Your task to perform on an android device: What's the weather? Image 0: 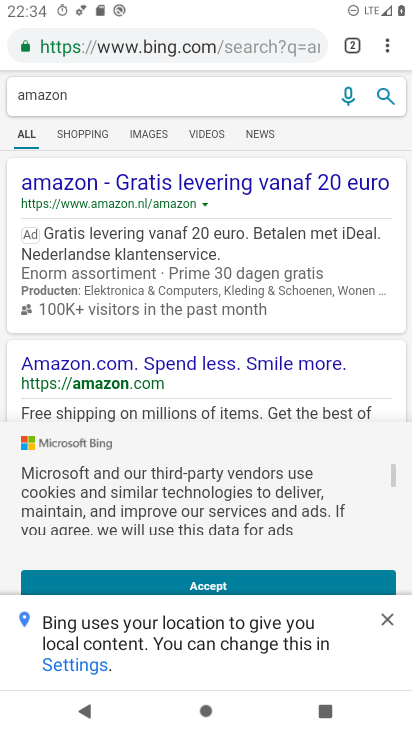
Step 0: press home button
Your task to perform on an android device: What's the weather? Image 1: 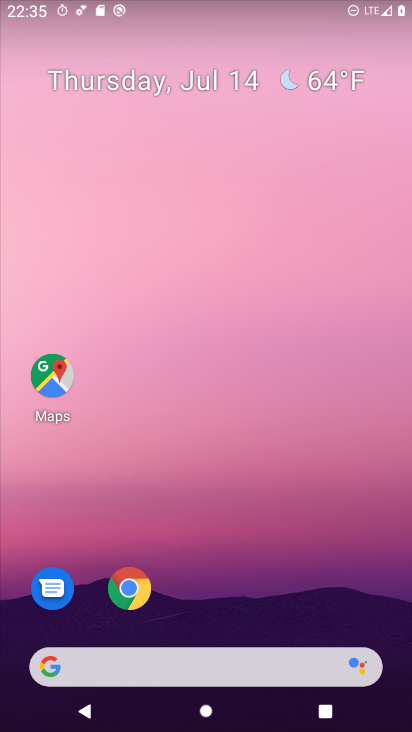
Step 1: click (256, 658)
Your task to perform on an android device: What's the weather? Image 2: 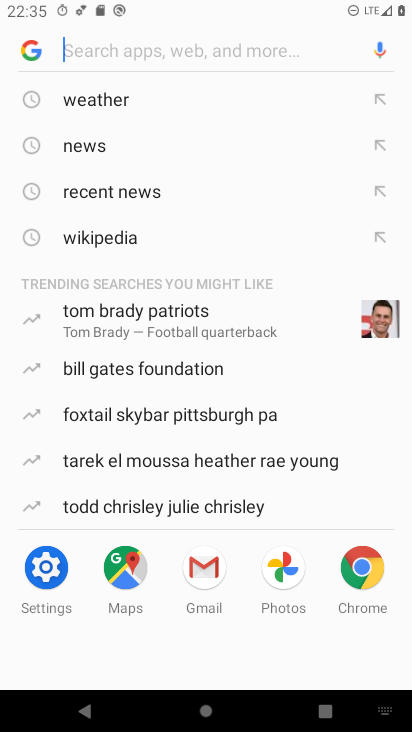
Step 2: click (124, 87)
Your task to perform on an android device: What's the weather? Image 3: 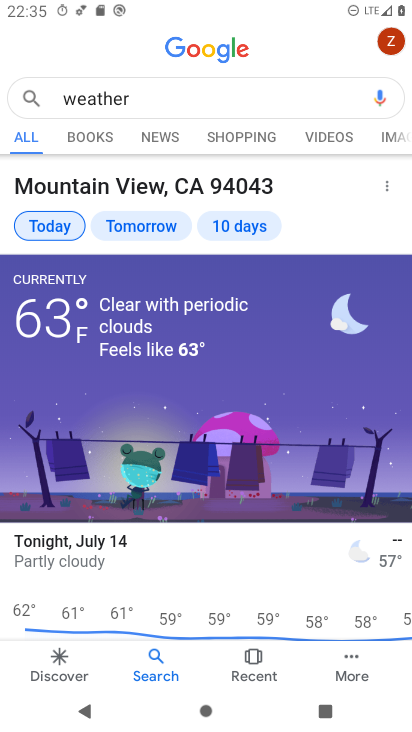
Step 3: task complete